Your task to perform on an android device: search for starred emails in the gmail app Image 0: 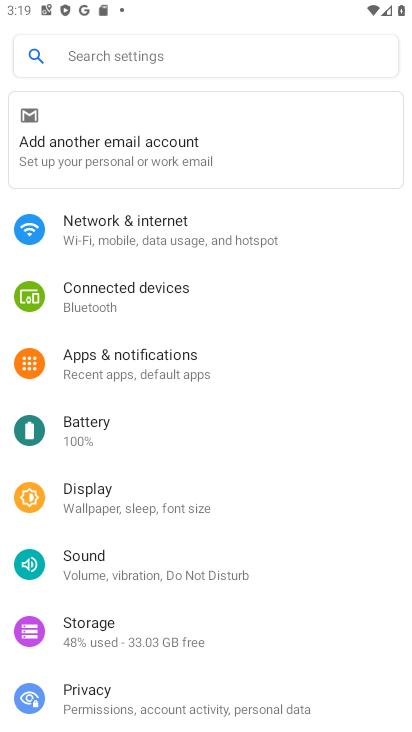
Step 0: press back button
Your task to perform on an android device: search for starred emails in the gmail app Image 1: 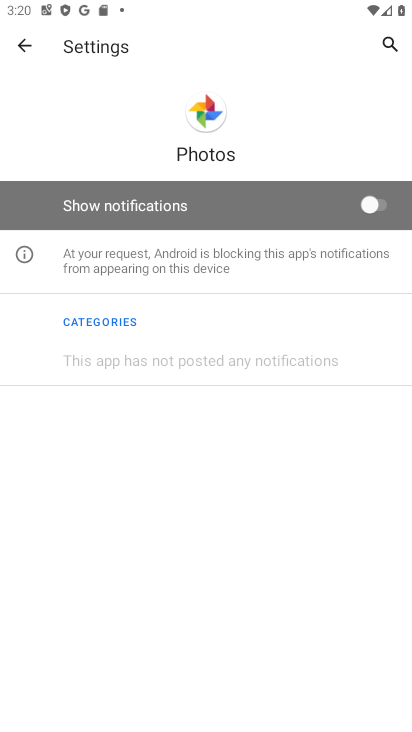
Step 1: press back button
Your task to perform on an android device: search for starred emails in the gmail app Image 2: 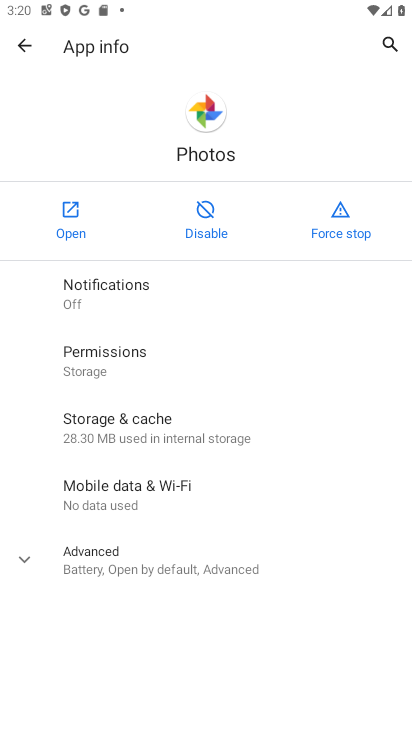
Step 2: press back button
Your task to perform on an android device: search for starred emails in the gmail app Image 3: 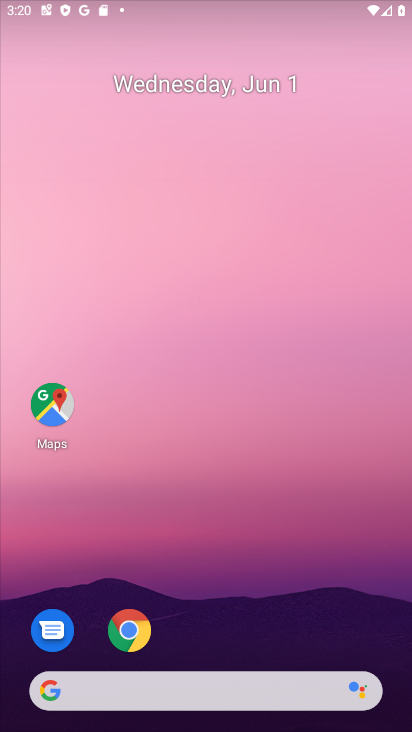
Step 3: drag from (188, 502) to (188, 19)
Your task to perform on an android device: search for starred emails in the gmail app Image 4: 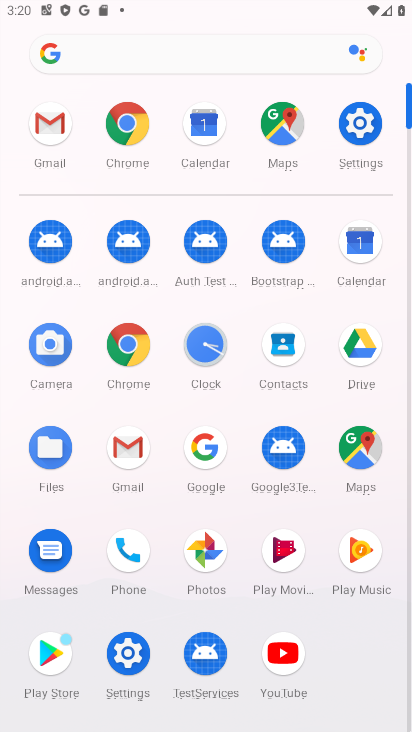
Step 4: click (43, 127)
Your task to perform on an android device: search for starred emails in the gmail app Image 5: 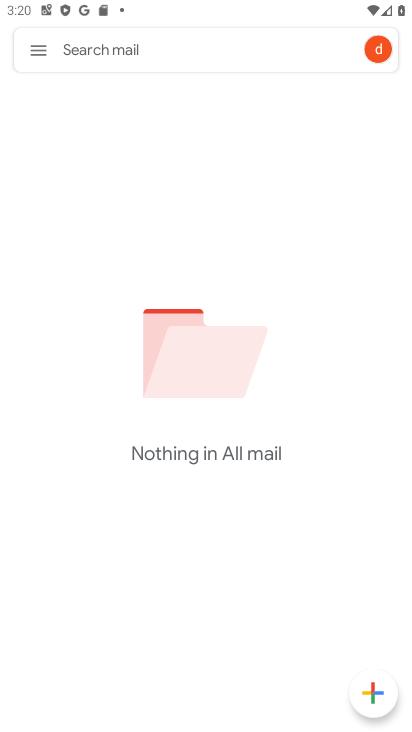
Step 5: click (32, 38)
Your task to perform on an android device: search for starred emails in the gmail app Image 6: 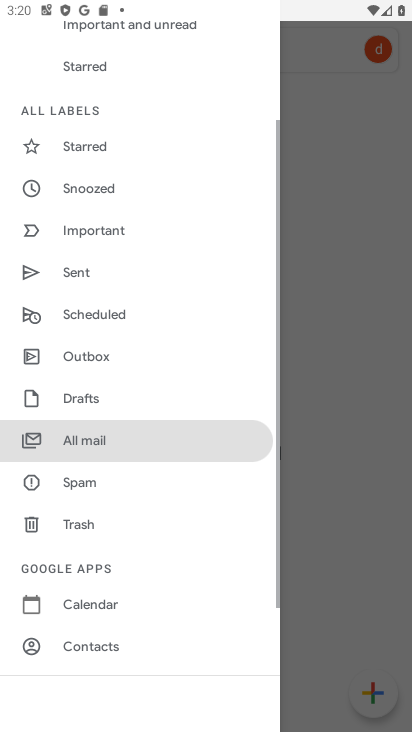
Step 6: click (80, 152)
Your task to perform on an android device: search for starred emails in the gmail app Image 7: 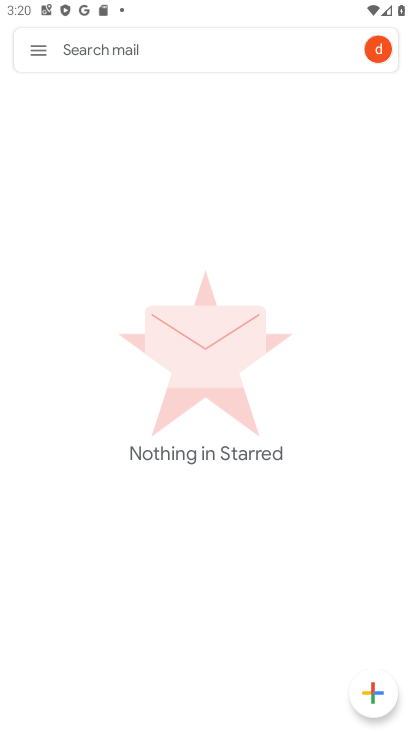
Step 7: task complete